Your task to perform on an android device: Do I have any events today? Image 0: 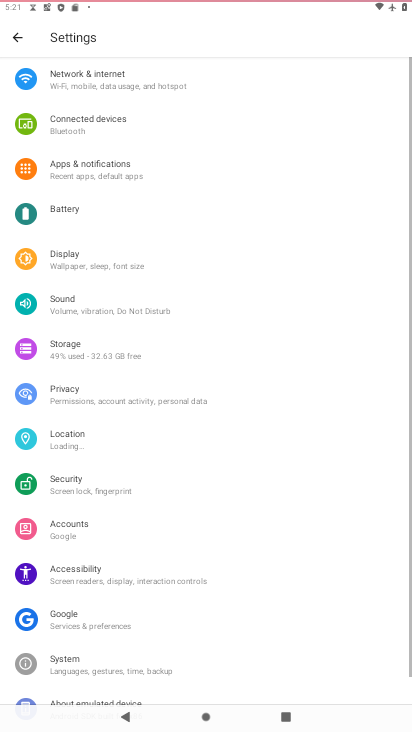
Step 0: press home button
Your task to perform on an android device: Do I have any events today? Image 1: 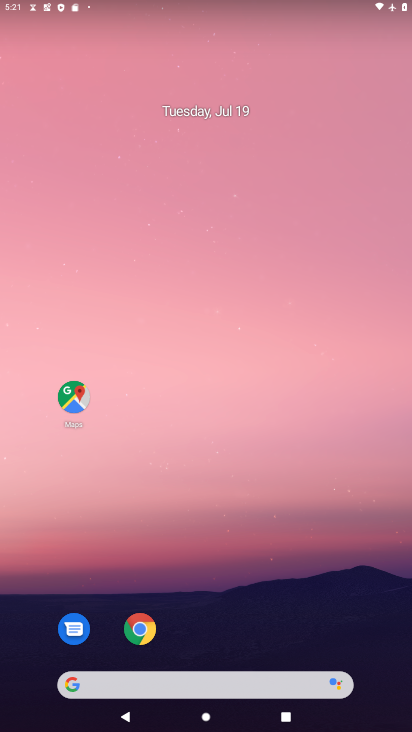
Step 1: drag from (245, 627) to (226, 17)
Your task to perform on an android device: Do I have any events today? Image 2: 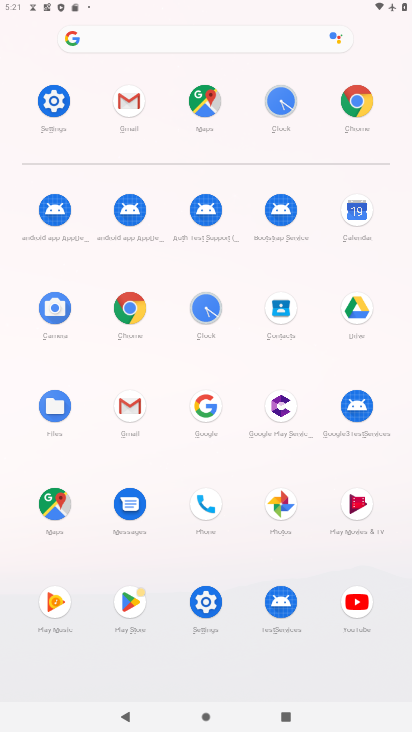
Step 2: click (359, 211)
Your task to perform on an android device: Do I have any events today? Image 3: 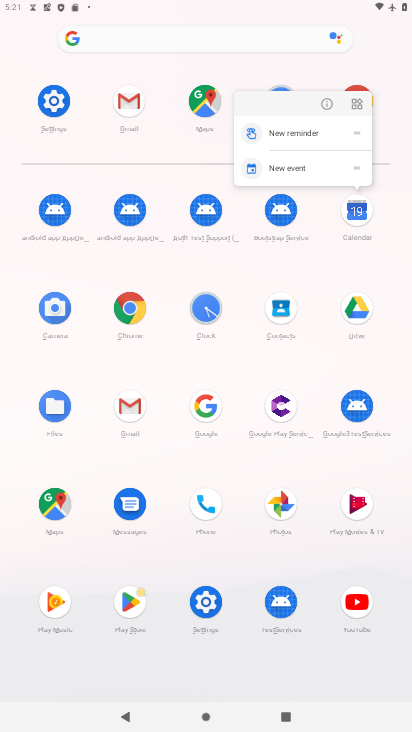
Step 3: click (359, 211)
Your task to perform on an android device: Do I have any events today? Image 4: 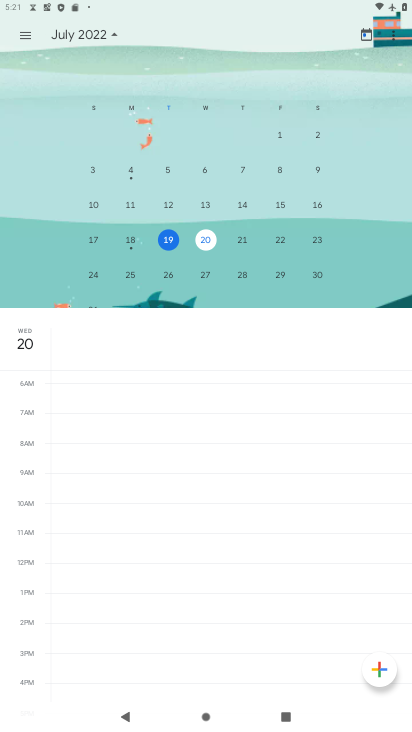
Step 4: click (171, 241)
Your task to perform on an android device: Do I have any events today? Image 5: 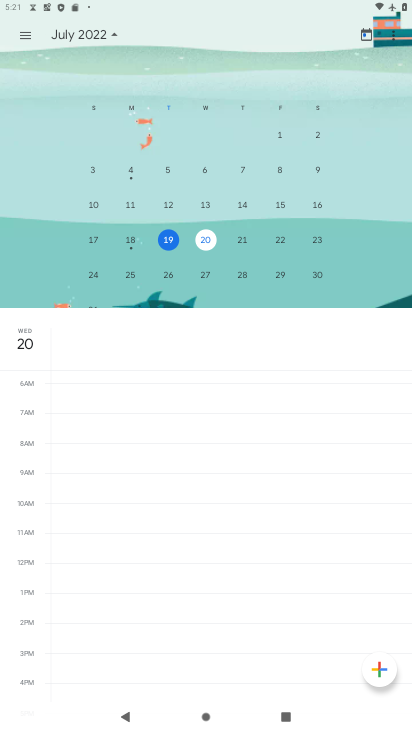
Step 5: task complete